Your task to perform on an android device: Add "beats solo 3" to the cart on bestbuy, then select checkout. Image 0: 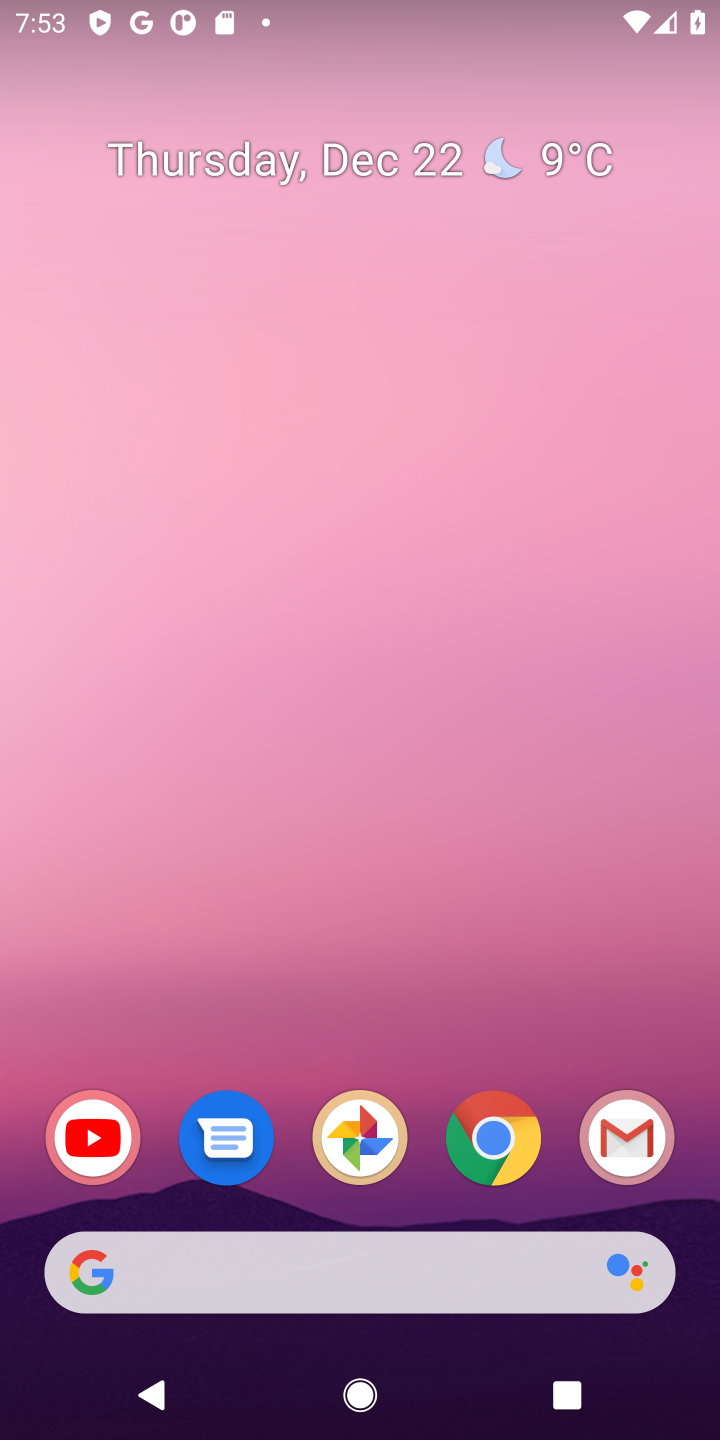
Step 0: click (488, 1143)
Your task to perform on an android device: Add "beats solo 3" to the cart on bestbuy, then select checkout. Image 1: 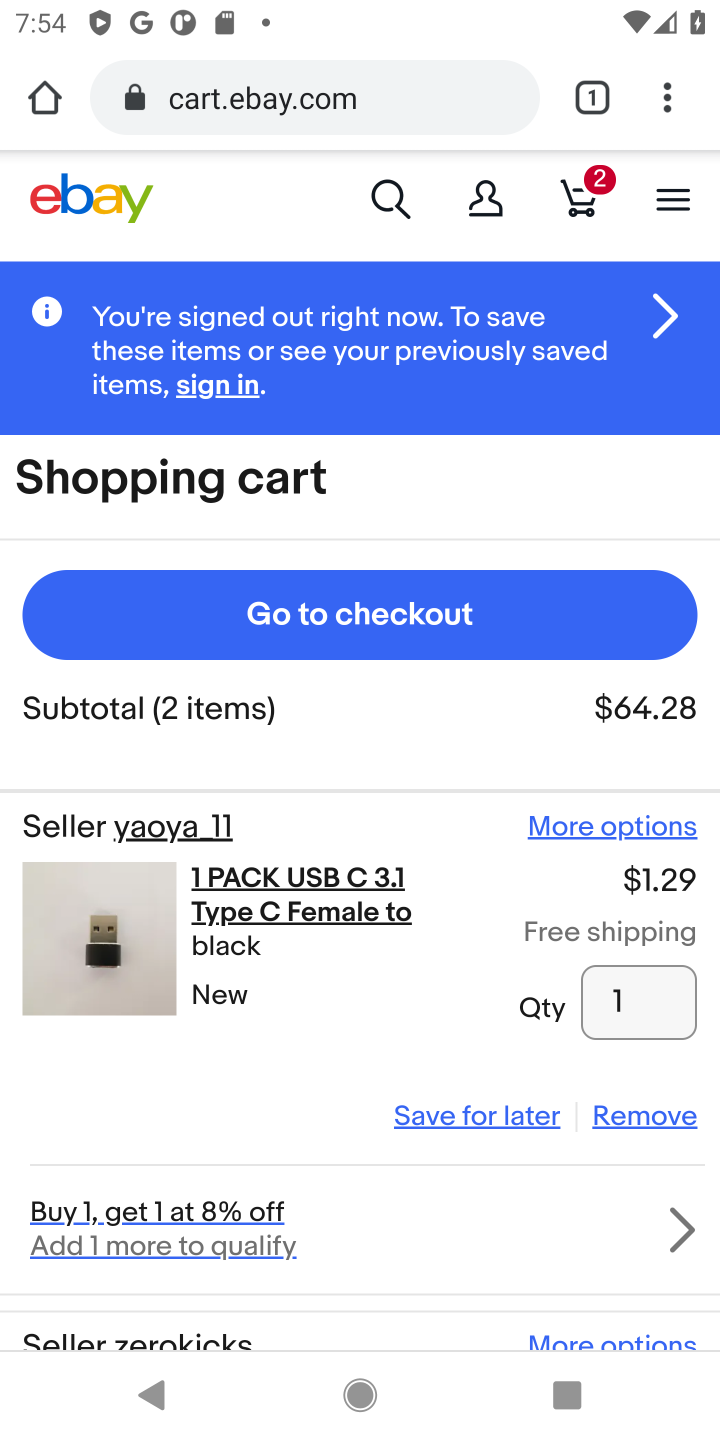
Step 1: click (280, 100)
Your task to perform on an android device: Add "beats solo 3" to the cart on bestbuy, then select checkout. Image 2: 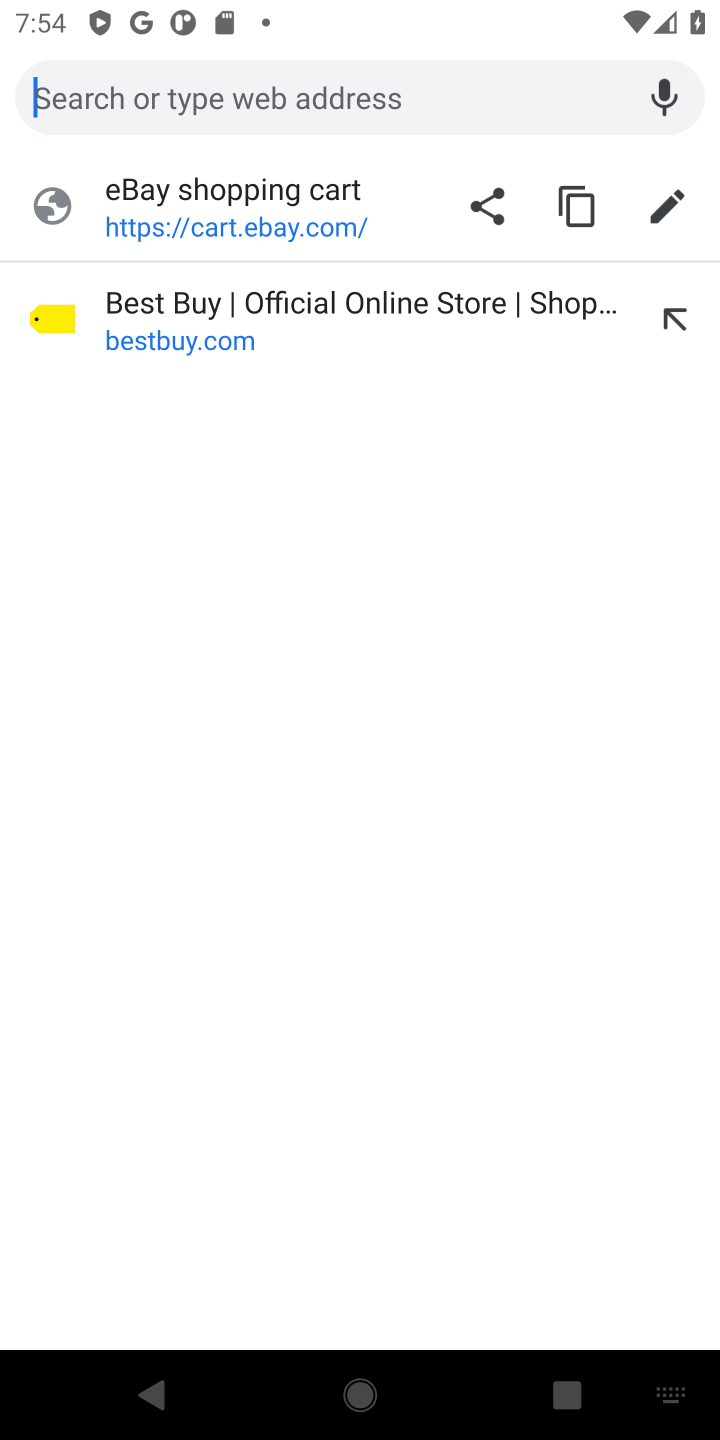
Step 2: type "bestbuy"
Your task to perform on an android device: Add "beats solo 3" to the cart on bestbuy, then select checkout. Image 3: 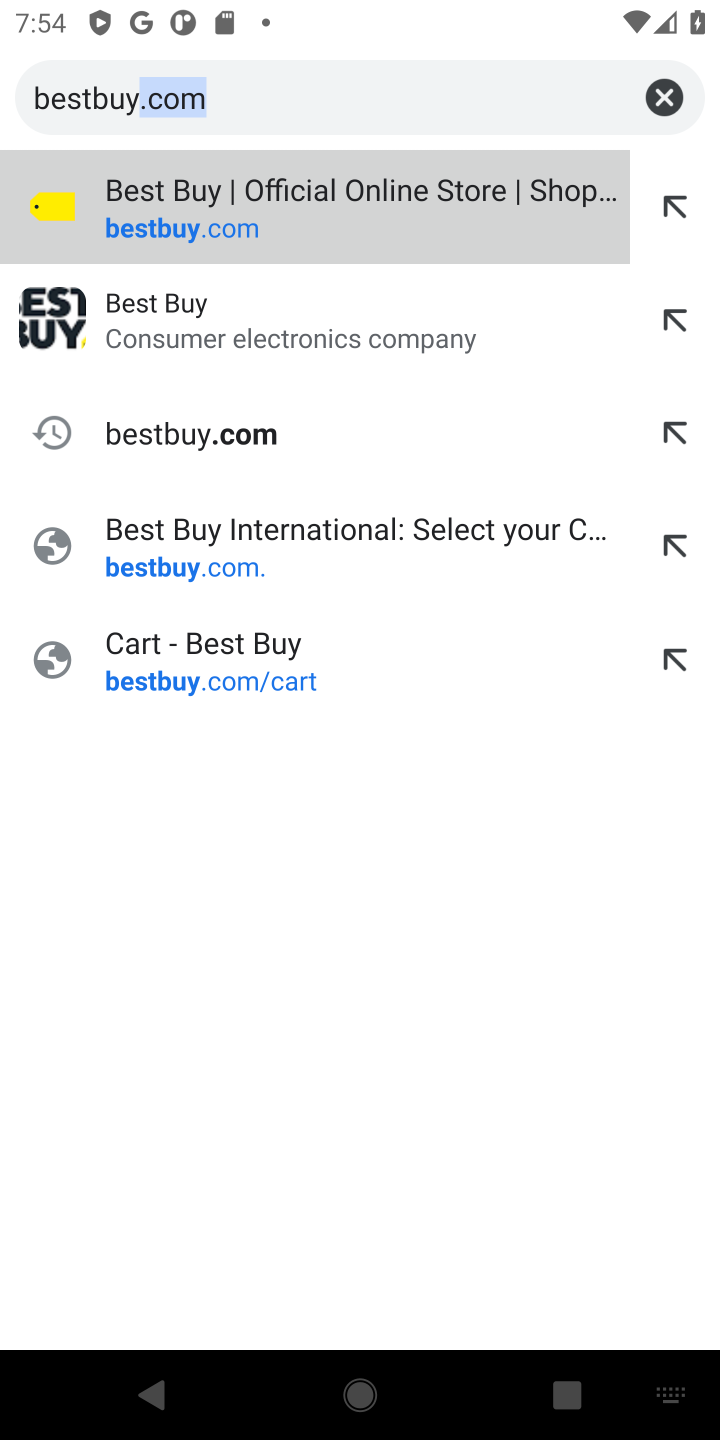
Step 3: click (322, 220)
Your task to perform on an android device: Add "beats solo 3" to the cart on bestbuy, then select checkout. Image 4: 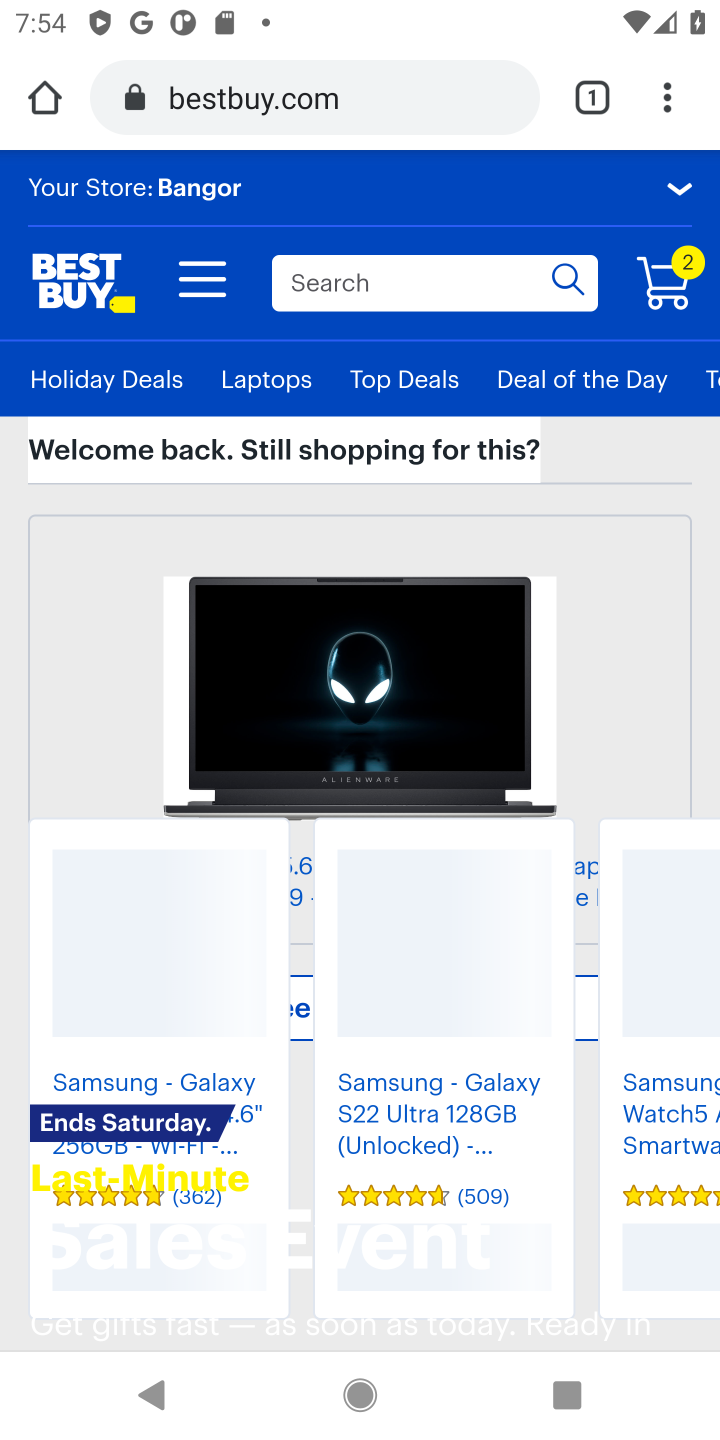
Step 4: click (422, 286)
Your task to perform on an android device: Add "beats solo 3" to the cart on bestbuy, then select checkout. Image 5: 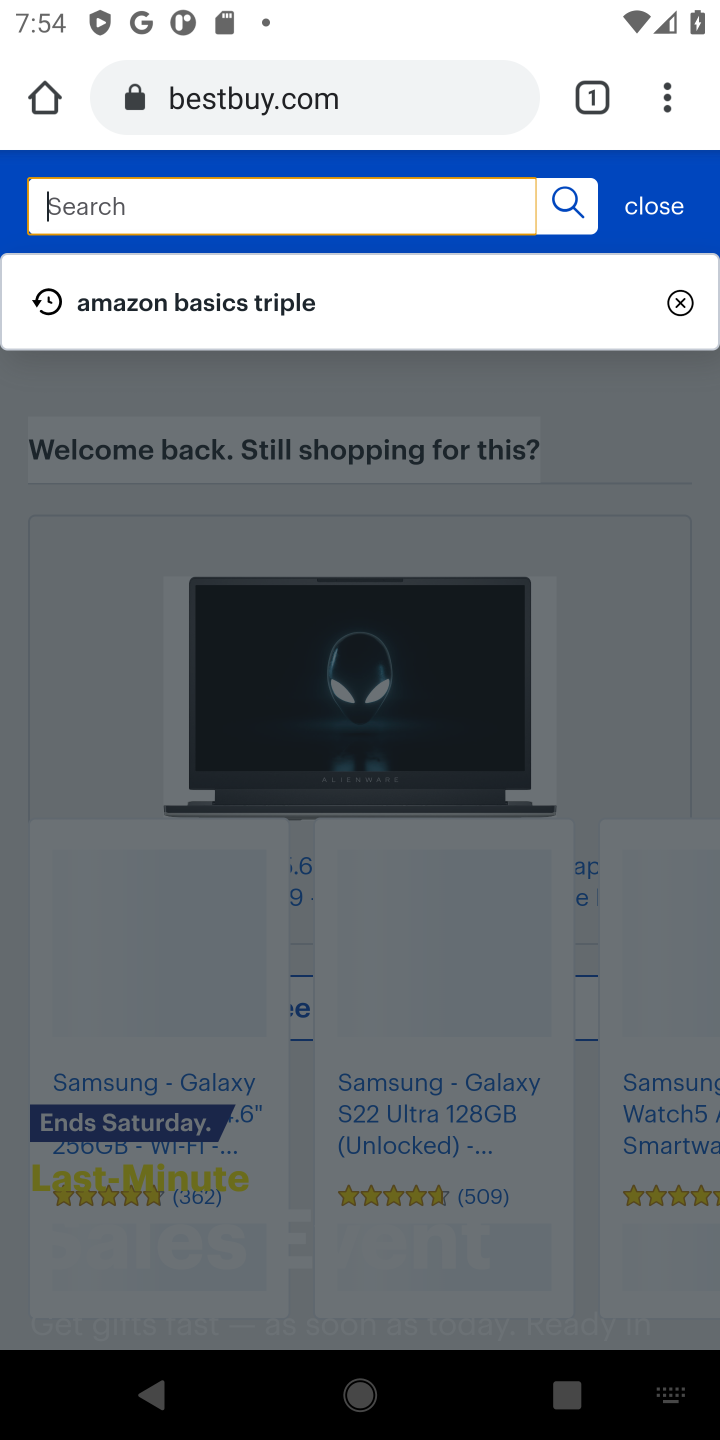
Step 5: type "beats solo 3"
Your task to perform on an android device: Add "beats solo 3" to the cart on bestbuy, then select checkout. Image 6: 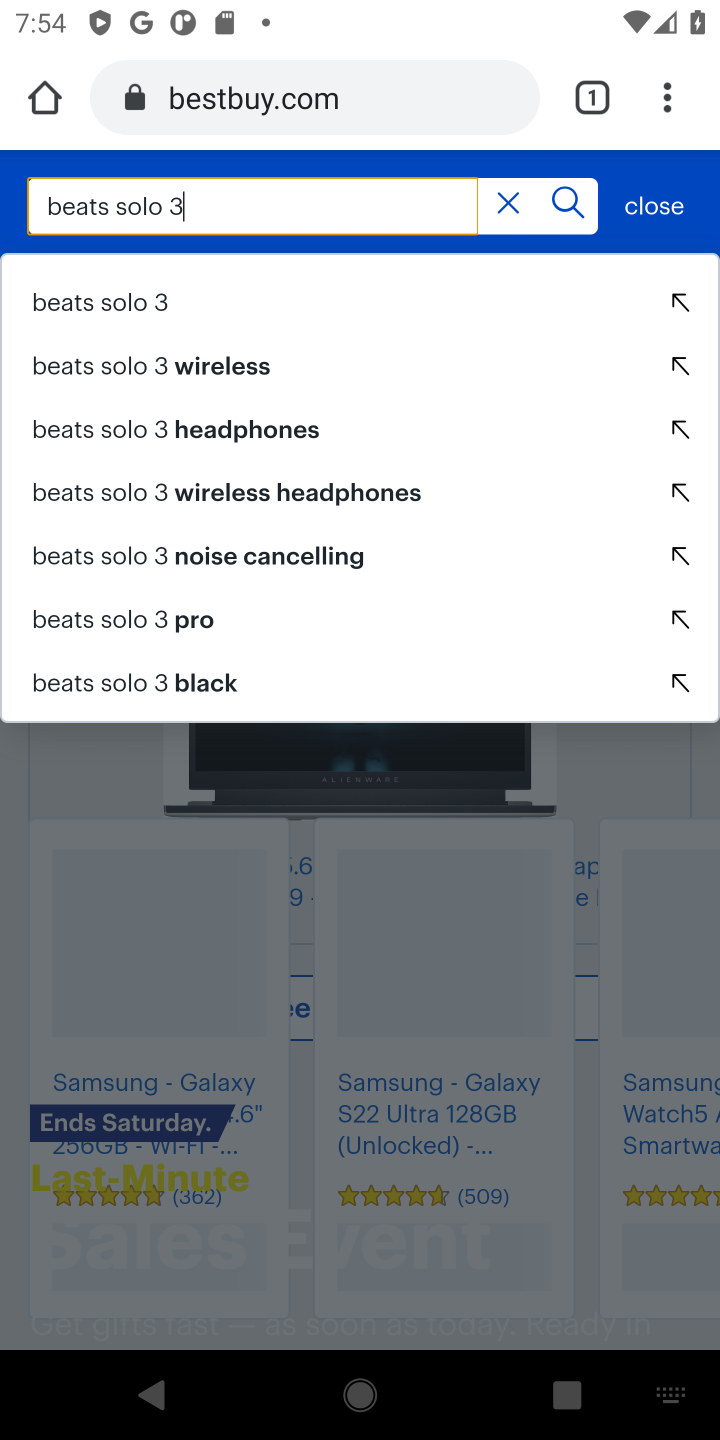
Step 6: click (568, 209)
Your task to perform on an android device: Add "beats solo 3" to the cart on bestbuy, then select checkout. Image 7: 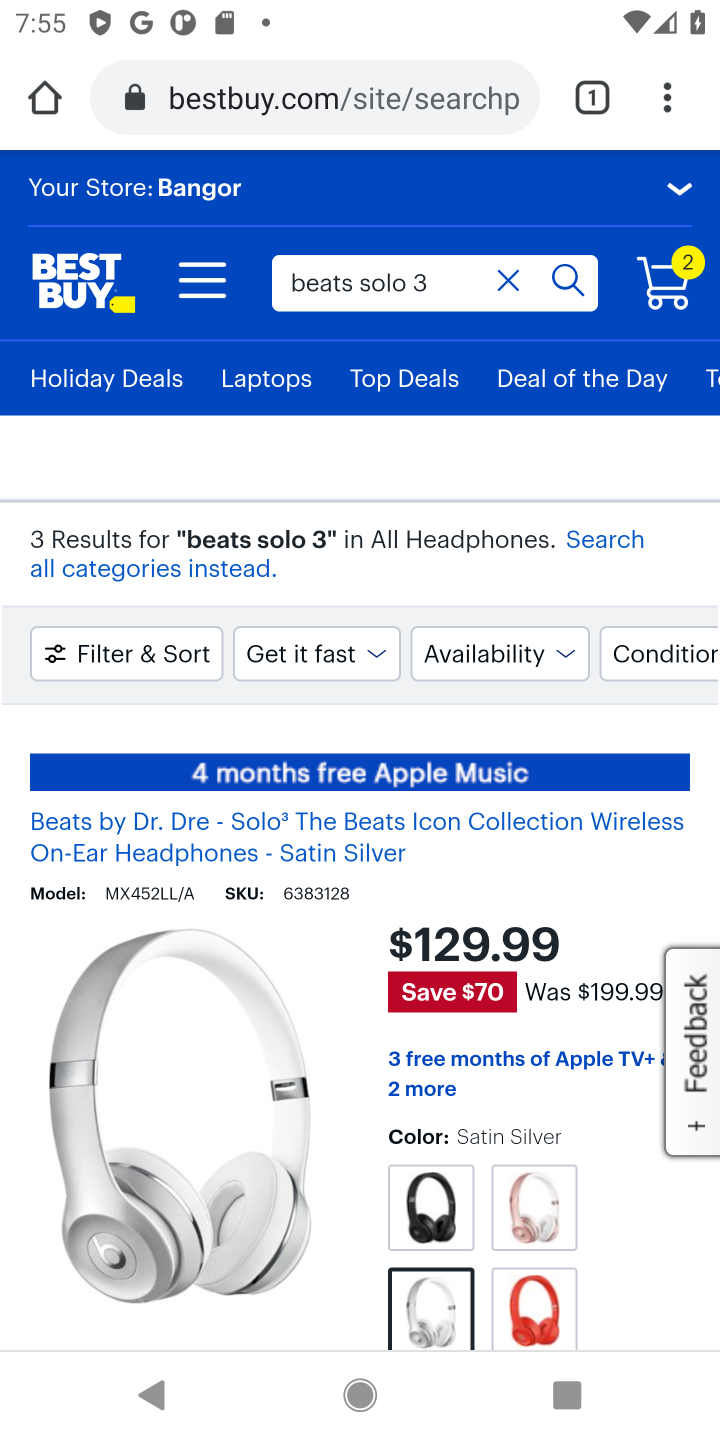
Step 7: drag from (324, 1006) to (265, 503)
Your task to perform on an android device: Add "beats solo 3" to the cart on bestbuy, then select checkout. Image 8: 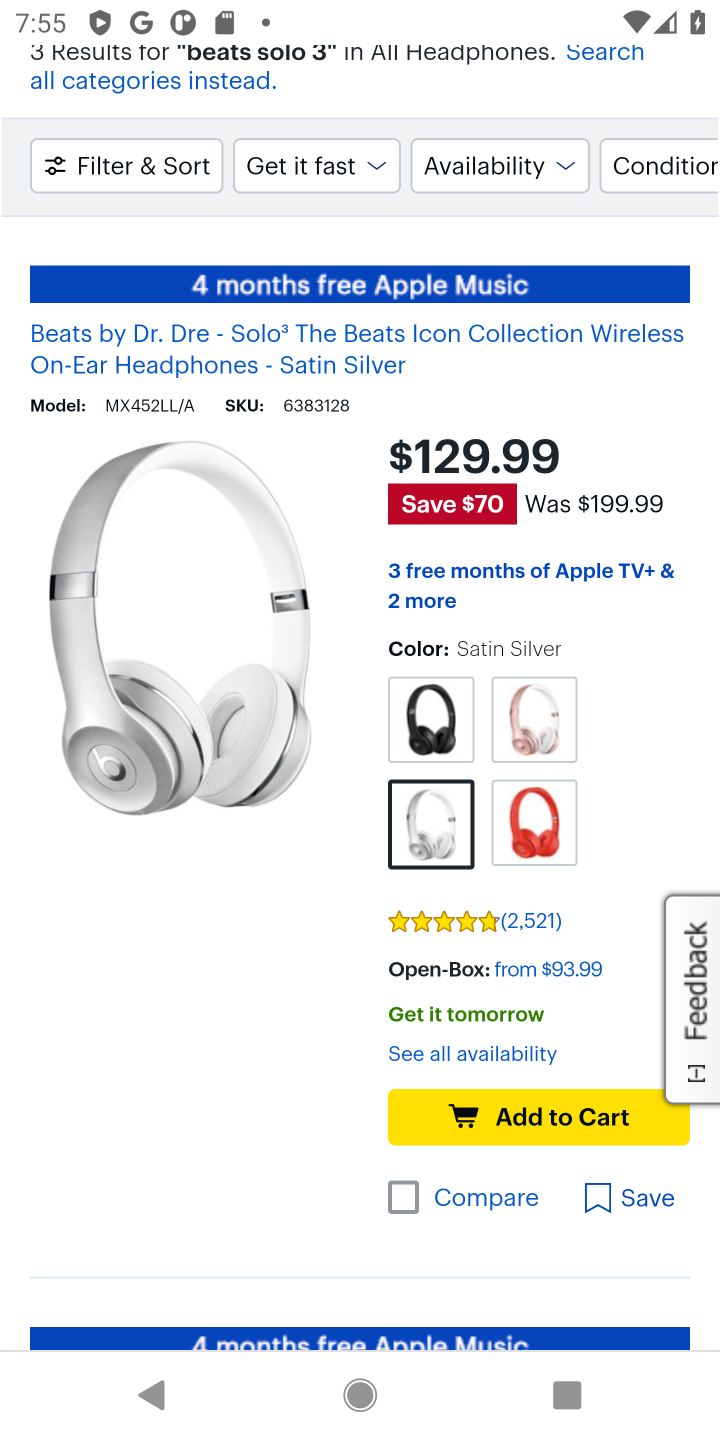
Step 8: click (487, 1119)
Your task to perform on an android device: Add "beats solo 3" to the cart on bestbuy, then select checkout. Image 9: 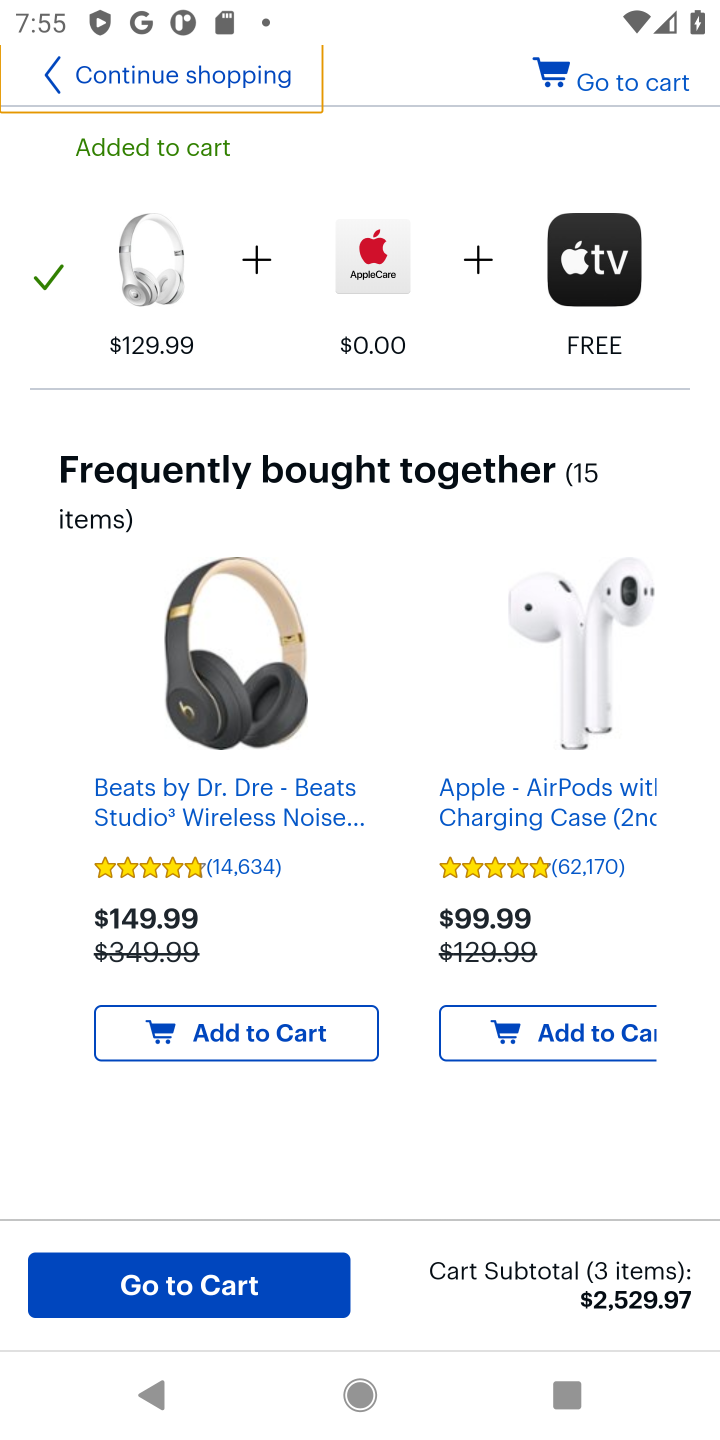
Step 9: click (229, 1299)
Your task to perform on an android device: Add "beats solo 3" to the cart on bestbuy, then select checkout. Image 10: 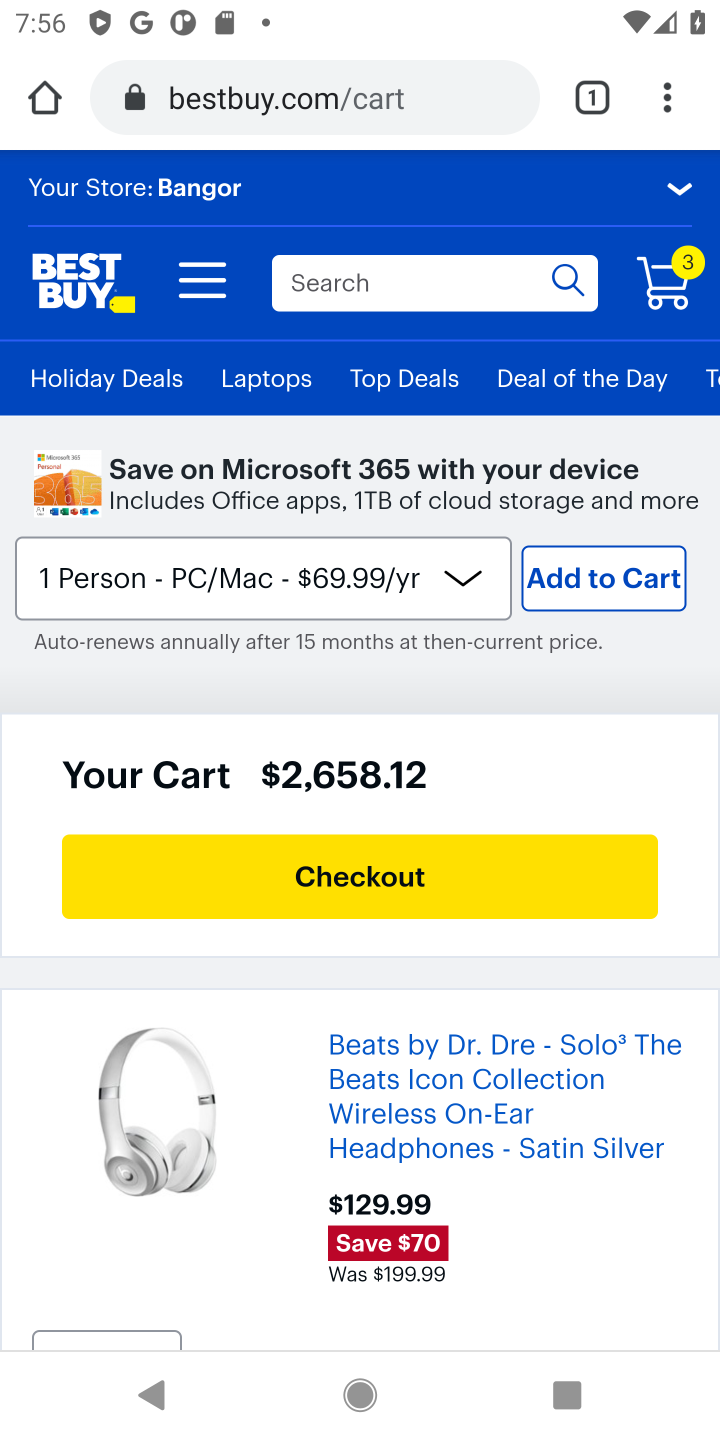
Step 10: click (308, 906)
Your task to perform on an android device: Add "beats solo 3" to the cart on bestbuy, then select checkout. Image 11: 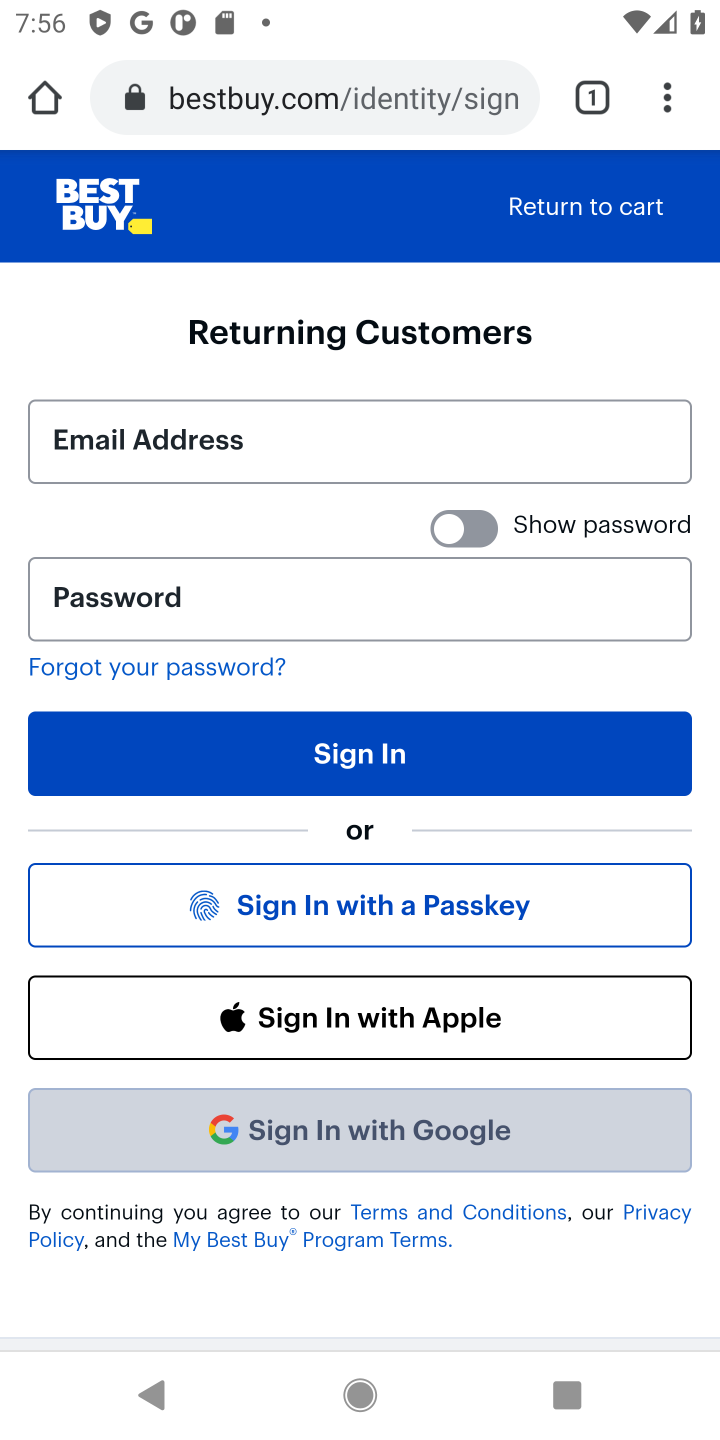
Step 11: task complete